Your task to perform on an android device: Open accessibility settings Image 0: 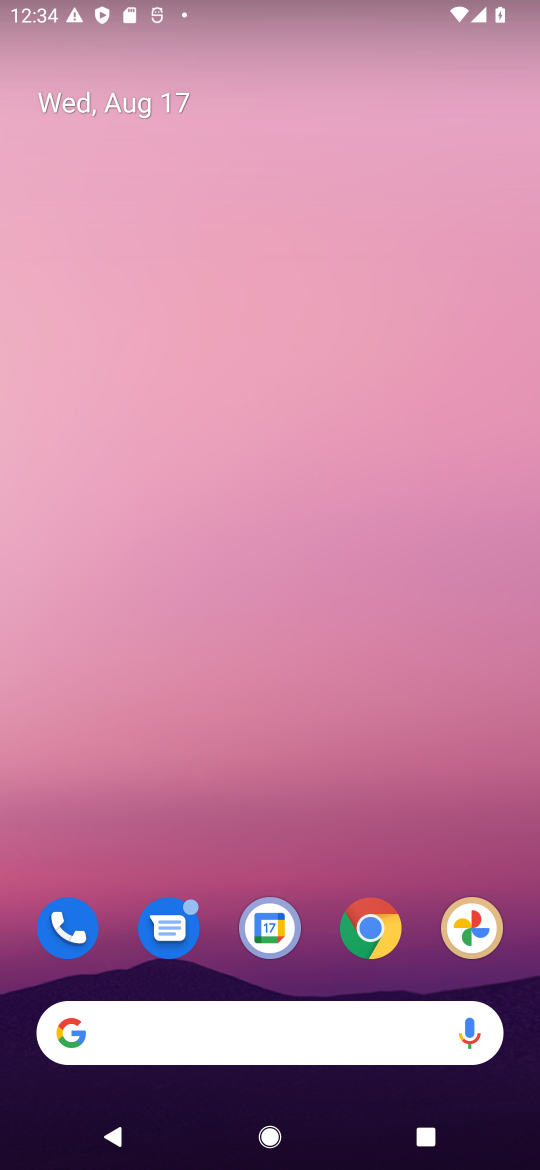
Step 0: drag from (315, 853) to (307, 278)
Your task to perform on an android device: Open accessibility settings Image 1: 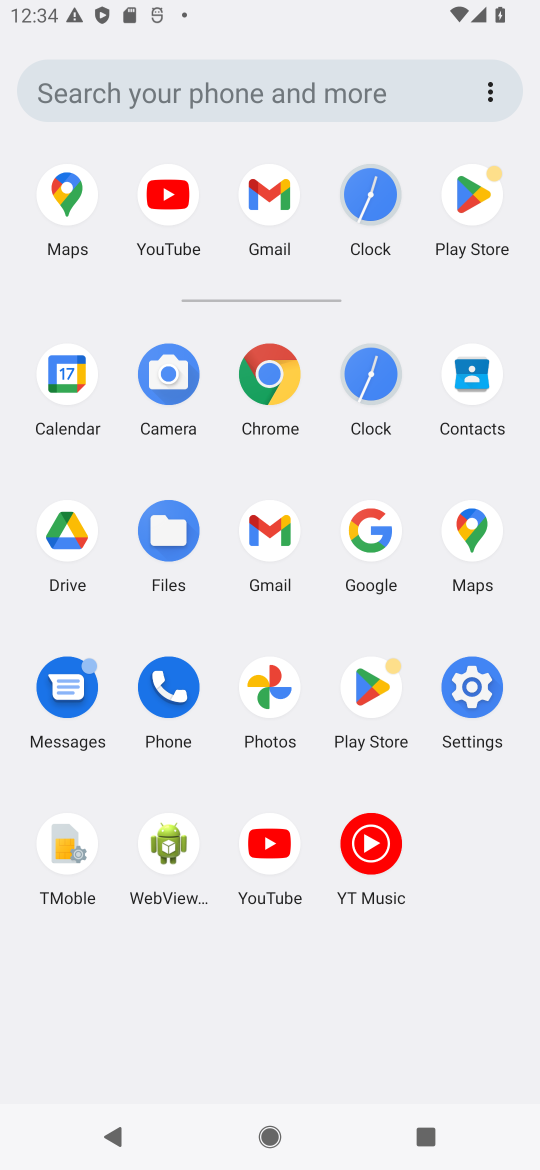
Step 1: click (448, 691)
Your task to perform on an android device: Open accessibility settings Image 2: 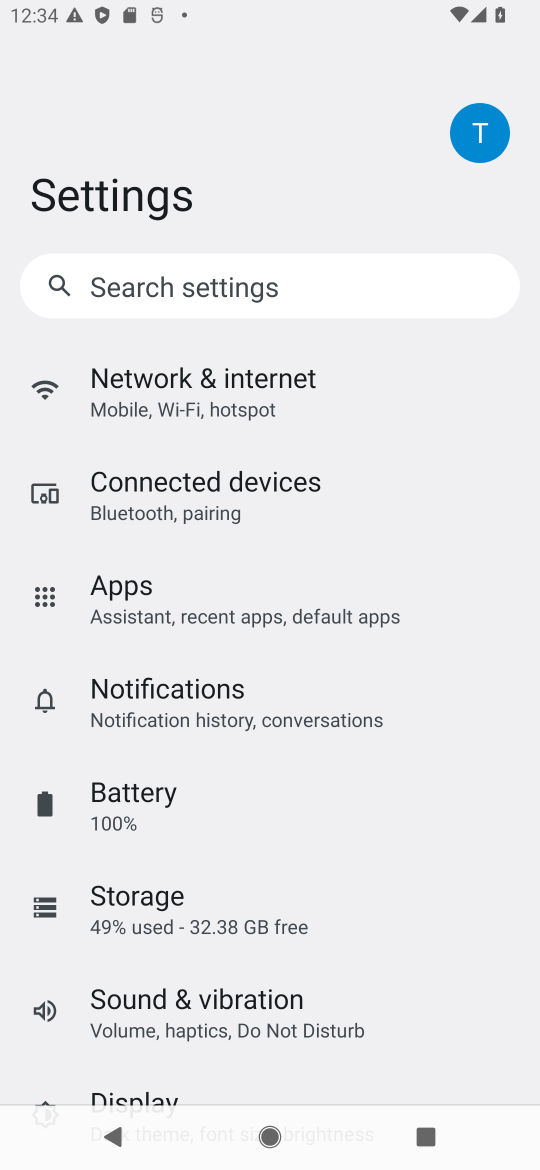
Step 2: drag from (241, 991) to (290, 360)
Your task to perform on an android device: Open accessibility settings Image 3: 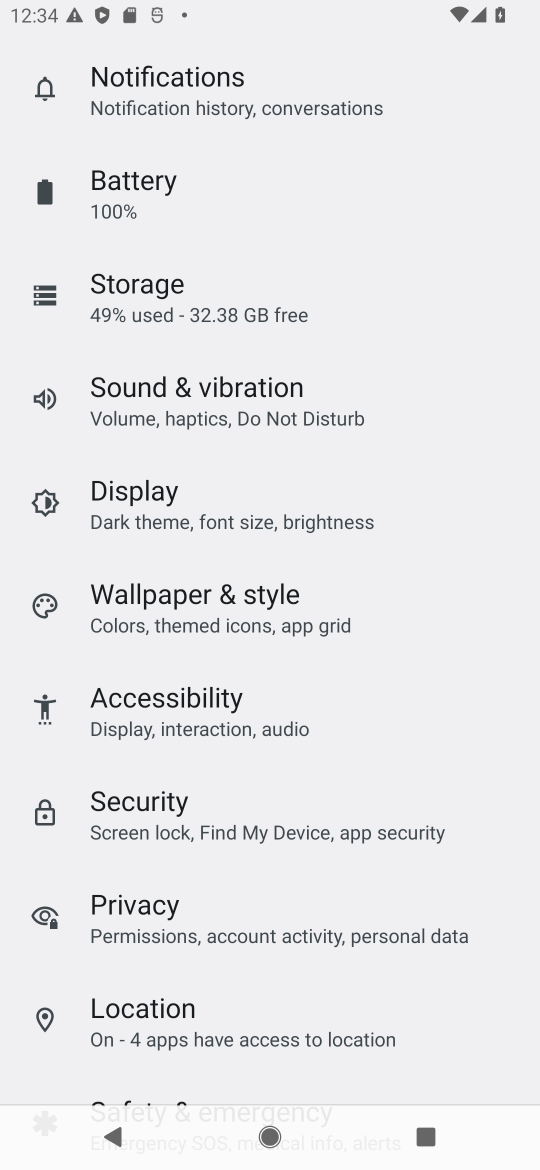
Step 3: click (230, 703)
Your task to perform on an android device: Open accessibility settings Image 4: 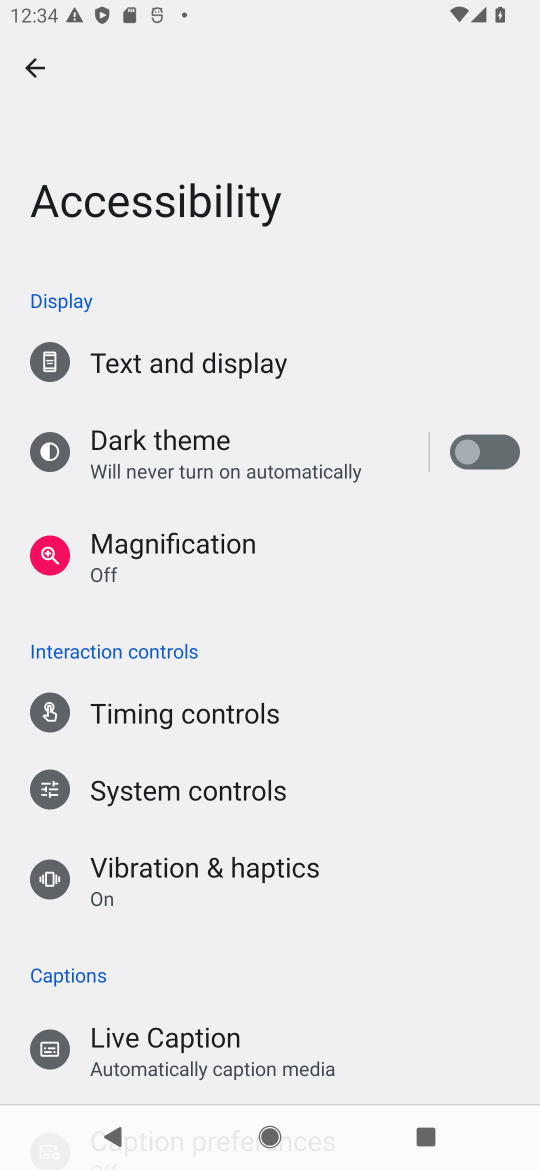
Step 4: task complete